Your task to perform on an android device: change the clock display to analog Image 0: 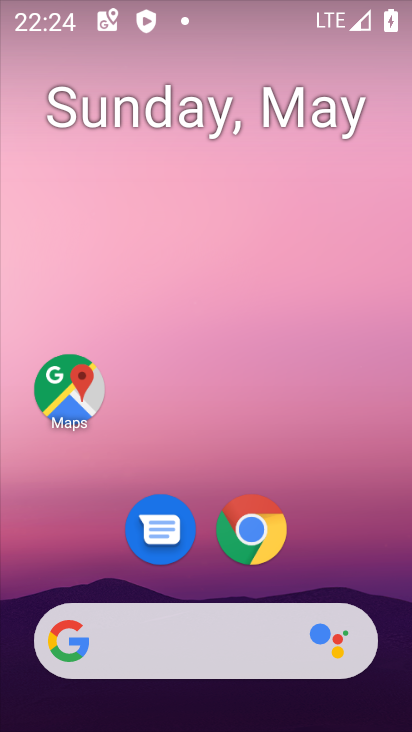
Step 0: drag from (366, 550) to (317, 76)
Your task to perform on an android device: change the clock display to analog Image 1: 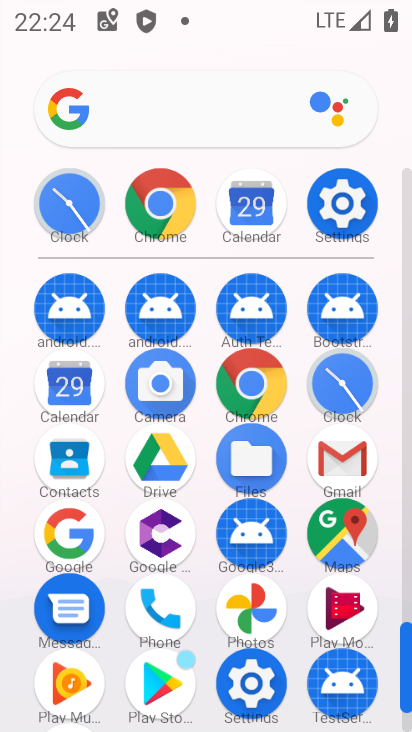
Step 1: click (328, 365)
Your task to perform on an android device: change the clock display to analog Image 2: 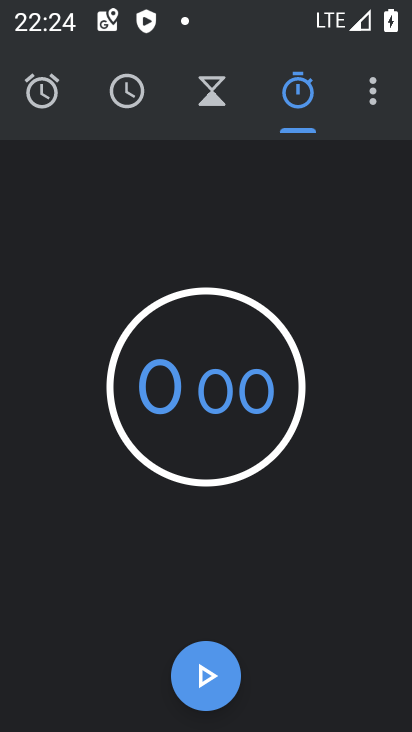
Step 2: click (391, 84)
Your task to perform on an android device: change the clock display to analog Image 3: 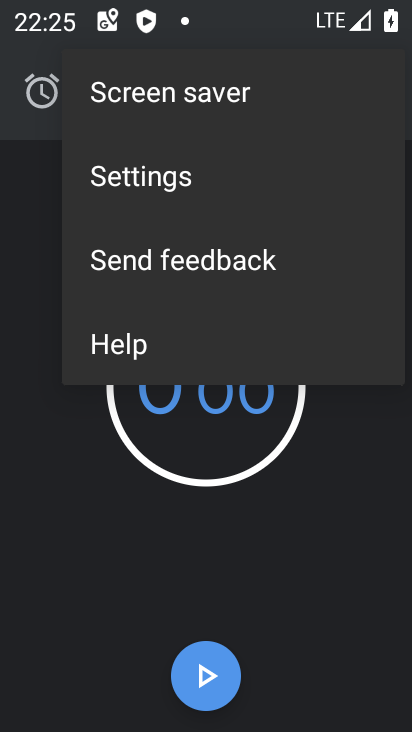
Step 3: click (169, 167)
Your task to perform on an android device: change the clock display to analog Image 4: 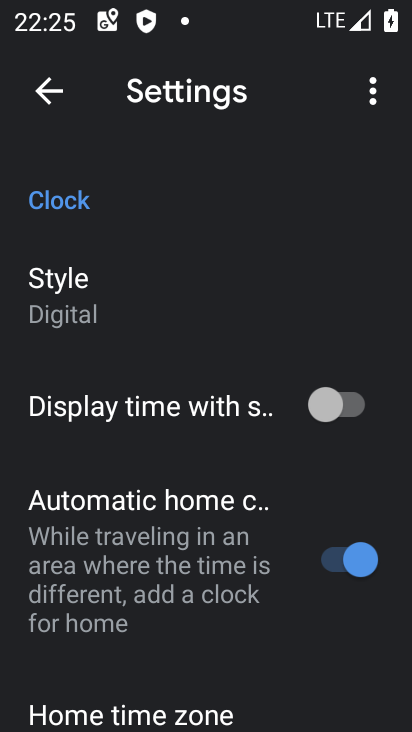
Step 4: click (138, 326)
Your task to perform on an android device: change the clock display to analog Image 5: 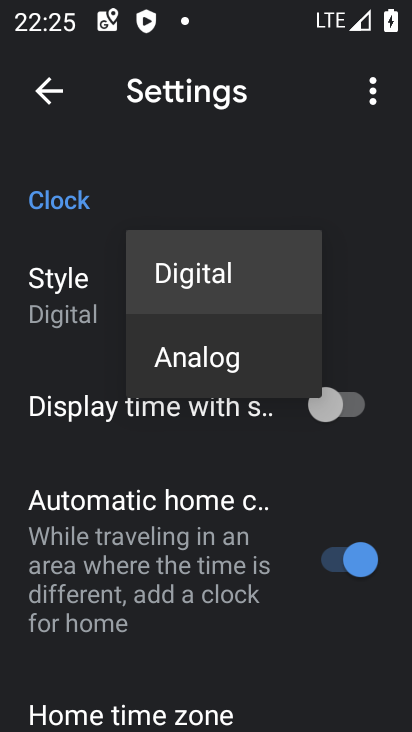
Step 5: click (195, 350)
Your task to perform on an android device: change the clock display to analog Image 6: 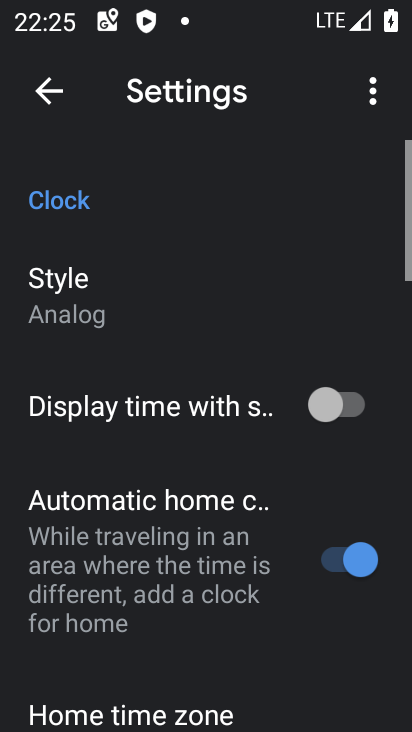
Step 6: task complete